Your task to perform on an android device: turn pop-ups off in chrome Image 0: 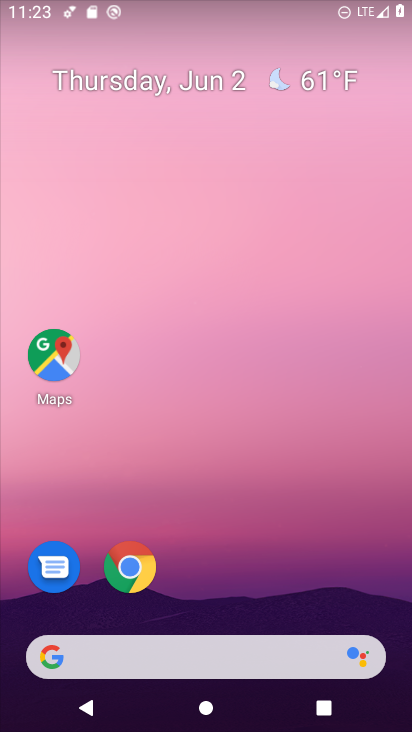
Step 0: click (124, 569)
Your task to perform on an android device: turn pop-ups off in chrome Image 1: 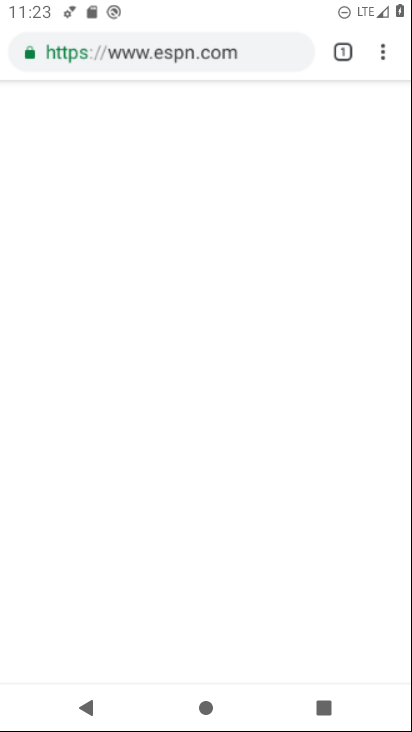
Step 1: drag from (386, 53) to (377, 104)
Your task to perform on an android device: turn pop-ups off in chrome Image 2: 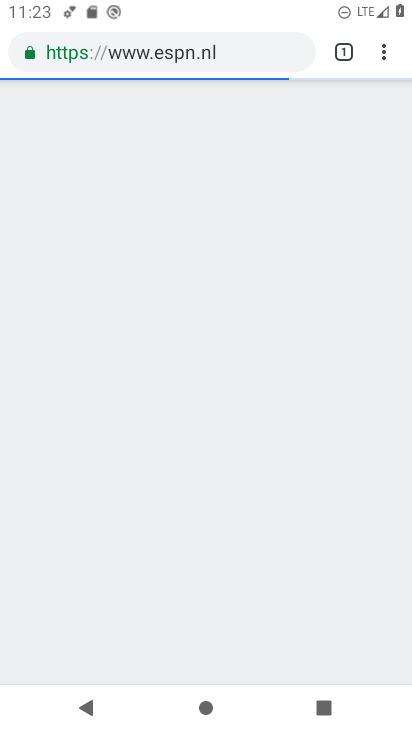
Step 2: drag from (383, 53) to (226, 587)
Your task to perform on an android device: turn pop-ups off in chrome Image 3: 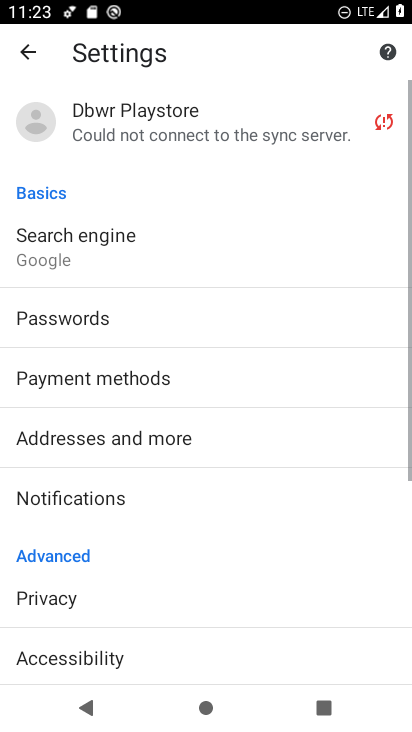
Step 3: drag from (226, 514) to (272, 138)
Your task to perform on an android device: turn pop-ups off in chrome Image 4: 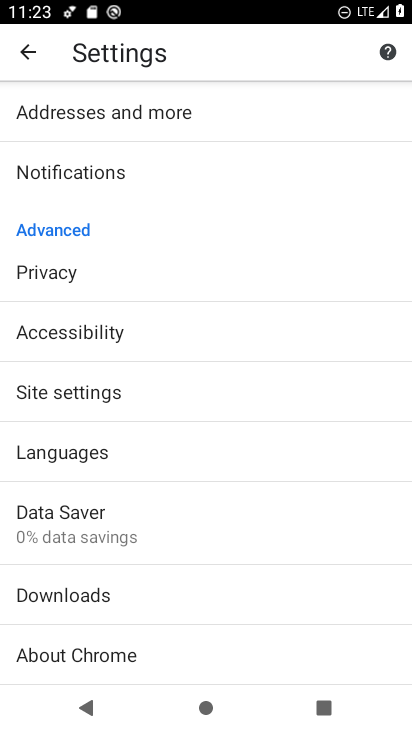
Step 4: click (60, 387)
Your task to perform on an android device: turn pop-ups off in chrome Image 5: 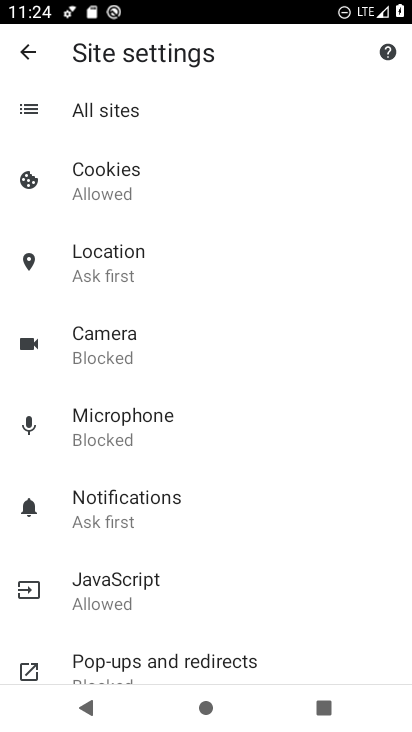
Step 5: click (142, 673)
Your task to perform on an android device: turn pop-ups off in chrome Image 6: 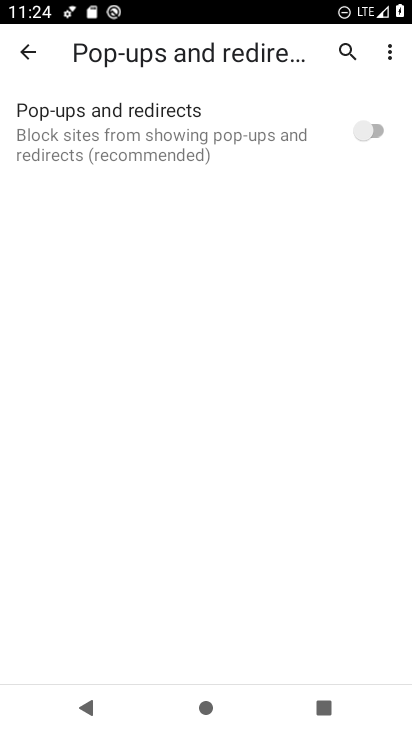
Step 6: task complete